Your task to perform on an android device: allow cookies in the chrome app Image 0: 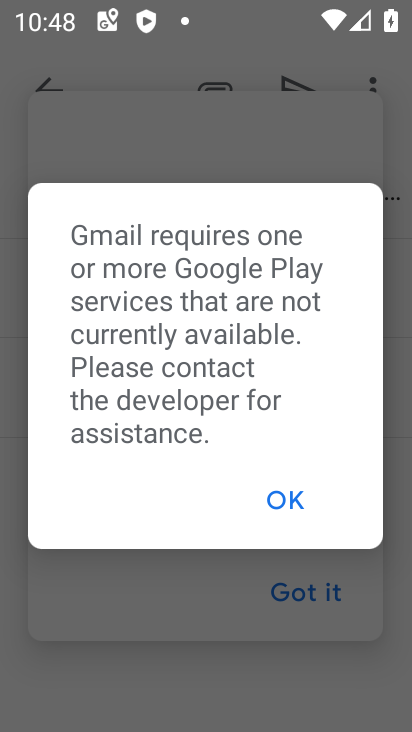
Step 0: click (295, 501)
Your task to perform on an android device: allow cookies in the chrome app Image 1: 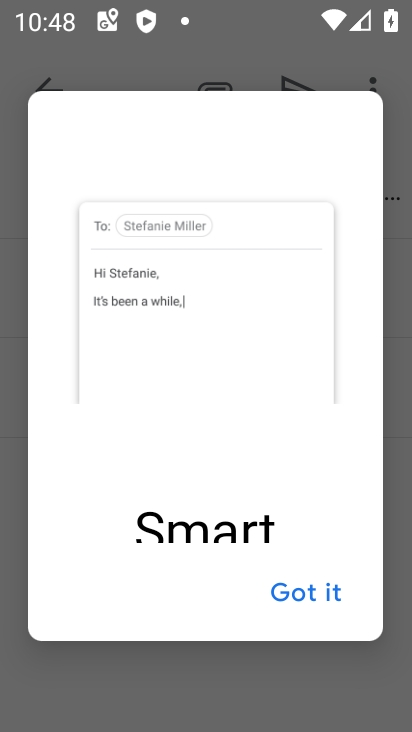
Step 1: press home button
Your task to perform on an android device: allow cookies in the chrome app Image 2: 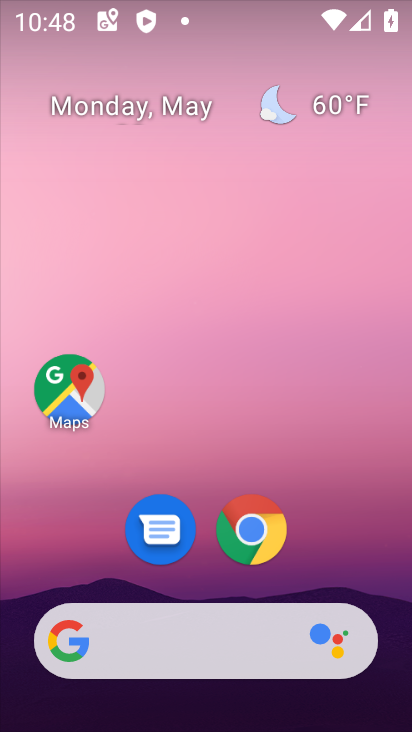
Step 2: click (258, 522)
Your task to perform on an android device: allow cookies in the chrome app Image 3: 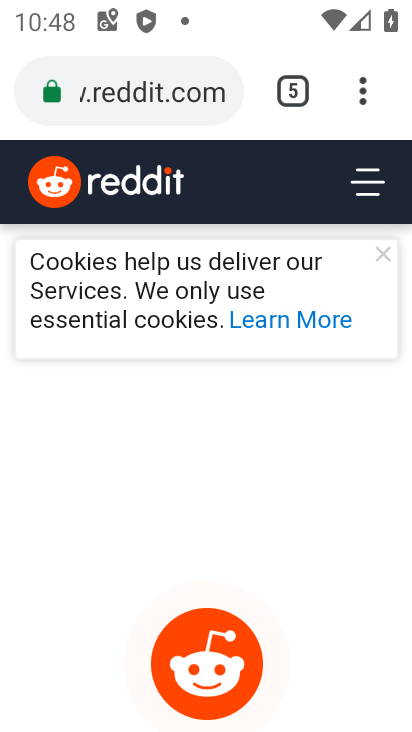
Step 3: click (356, 88)
Your task to perform on an android device: allow cookies in the chrome app Image 4: 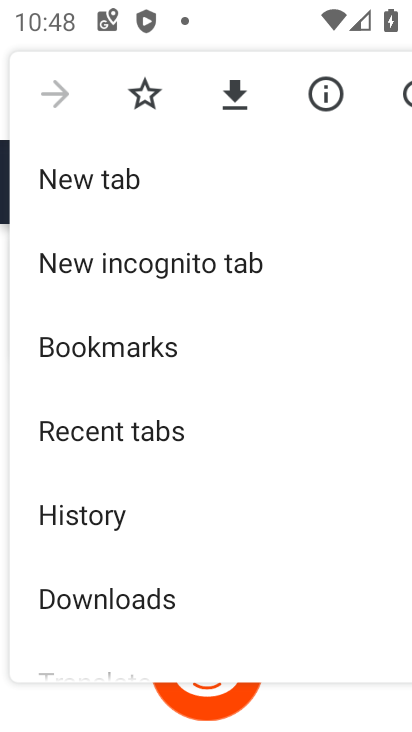
Step 4: drag from (249, 569) to (231, 109)
Your task to perform on an android device: allow cookies in the chrome app Image 5: 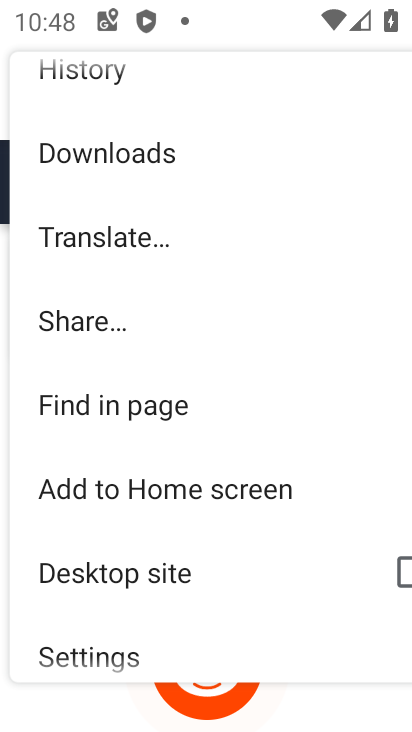
Step 5: drag from (239, 576) to (194, 176)
Your task to perform on an android device: allow cookies in the chrome app Image 6: 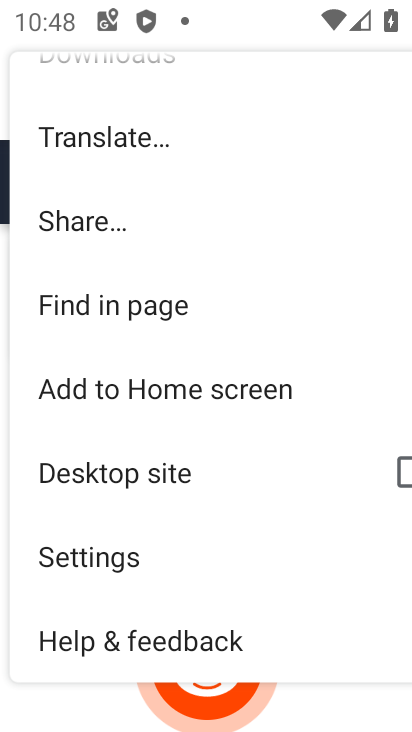
Step 6: click (101, 557)
Your task to perform on an android device: allow cookies in the chrome app Image 7: 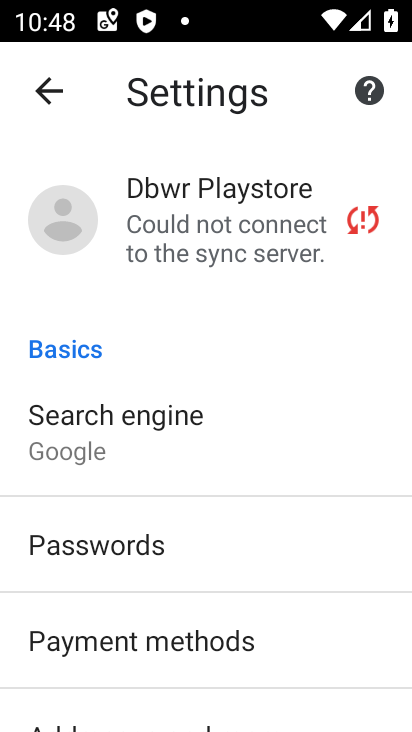
Step 7: drag from (256, 523) to (200, 182)
Your task to perform on an android device: allow cookies in the chrome app Image 8: 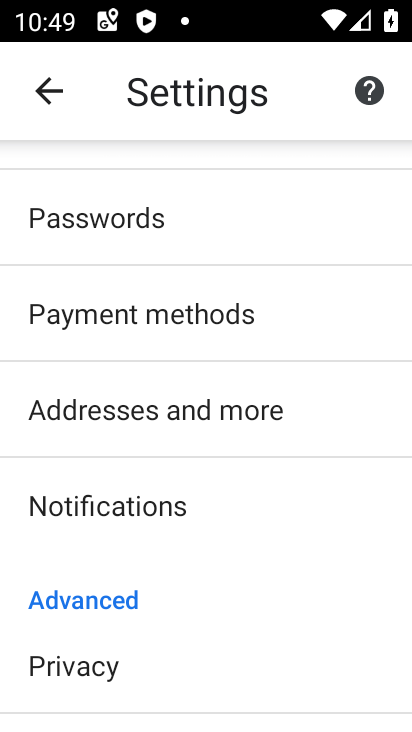
Step 8: drag from (197, 606) to (197, 403)
Your task to perform on an android device: allow cookies in the chrome app Image 9: 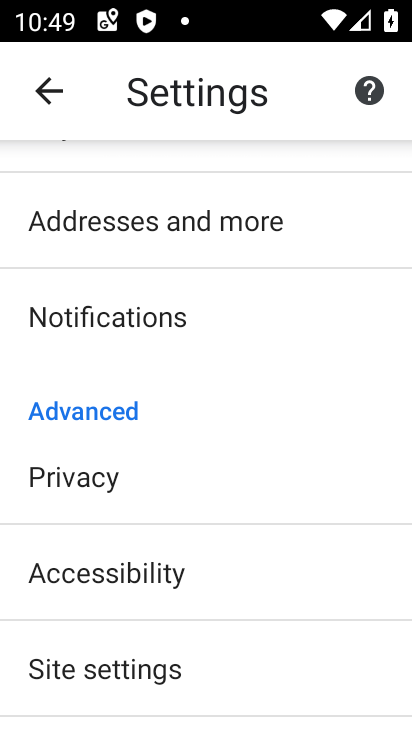
Step 9: drag from (235, 510) to (236, 222)
Your task to perform on an android device: allow cookies in the chrome app Image 10: 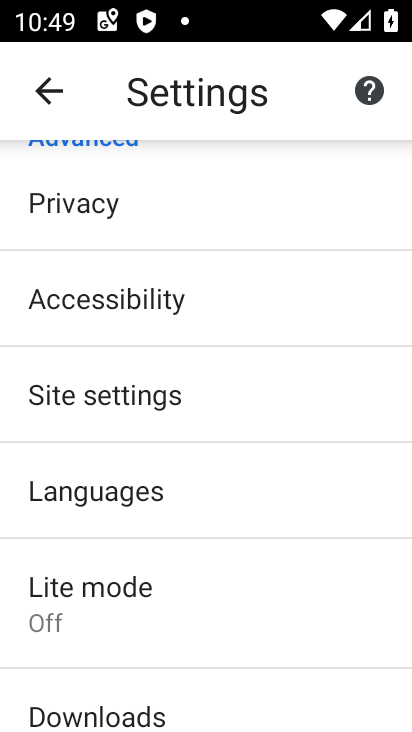
Step 10: click (109, 397)
Your task to perform on an android device: allow cookies in the chrome app Image 11: 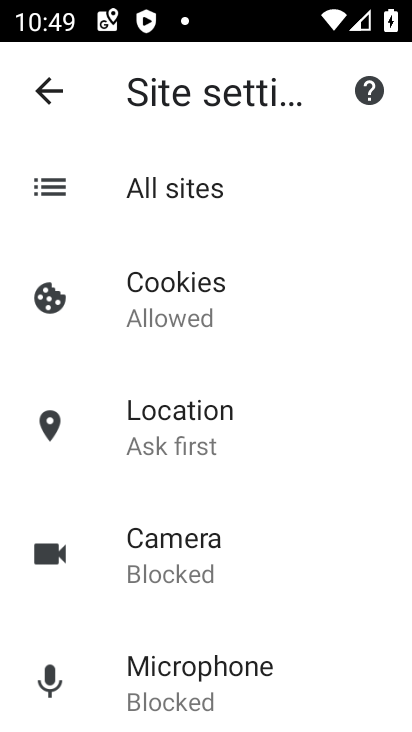
Step 11: click (164, 299)
Your task to perform on an android device: allow cookies in the chrome app Image 12: 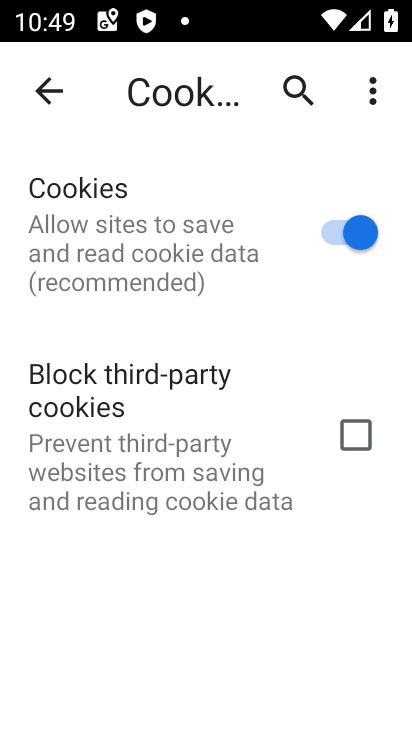
Step 12: task complete